Your task to perform on an android device: Open the web browser Image 0: 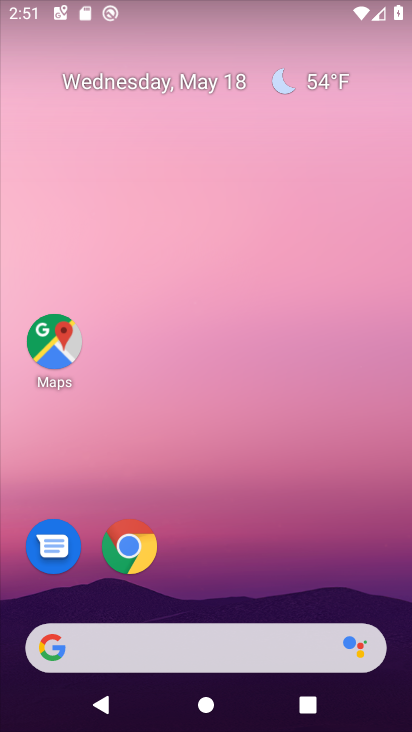
Step 0: drag from (243, 607) to (208, 144)
Your task to perform on an android device: Open the web browser Image 1: 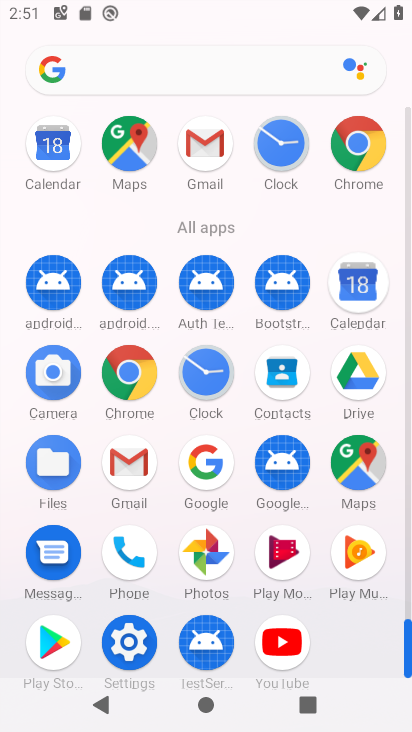
Step 1: click (357, 139)
Your task to perform on an android device: Open the web browser Image 2: 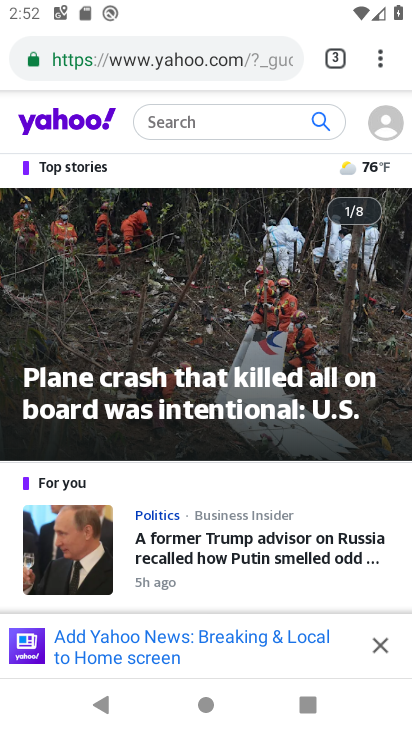
Step 2: press back button
Your task to perform on an android device: Open the web browser Image 3: 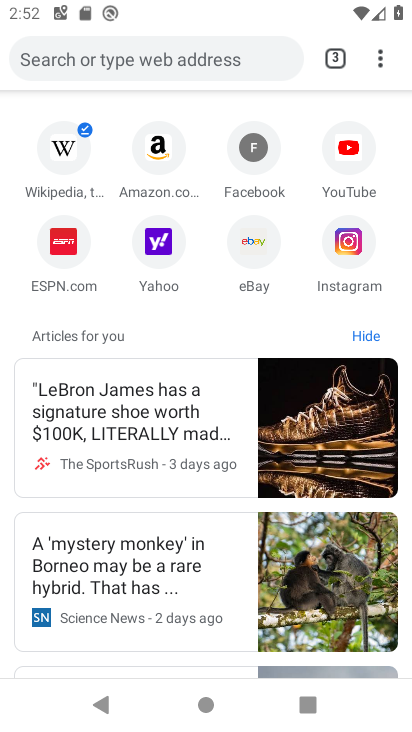
Step 3: press home button
Your task to perform on an android device: Open the web browser Image 4: 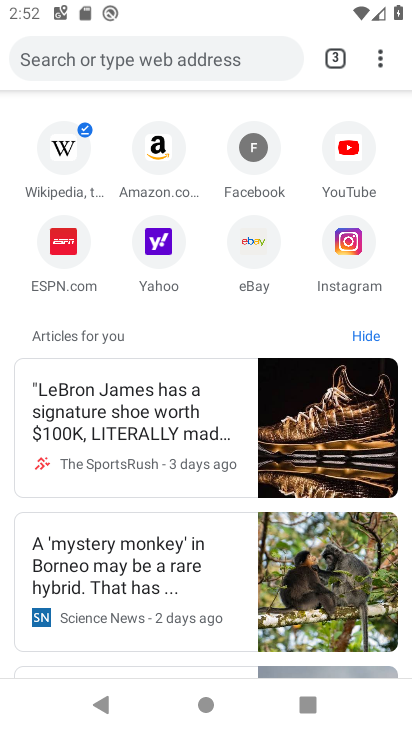
Step 4: press home button
Your task to perform on an android device: Open the web browser Image 5: 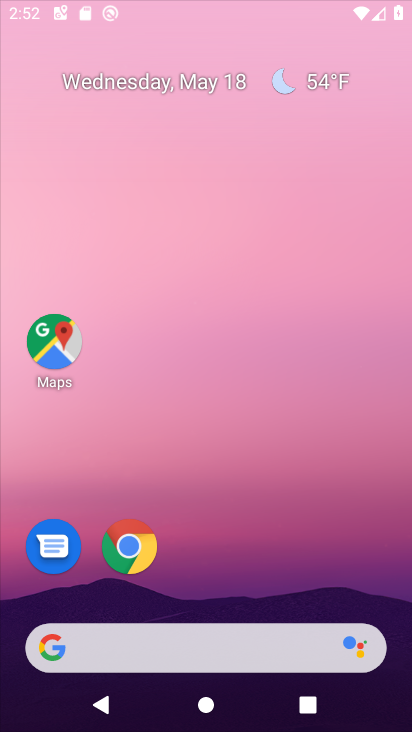
Step 5: press home button
Your task to perform on an android device: Open the web browser Image 6: 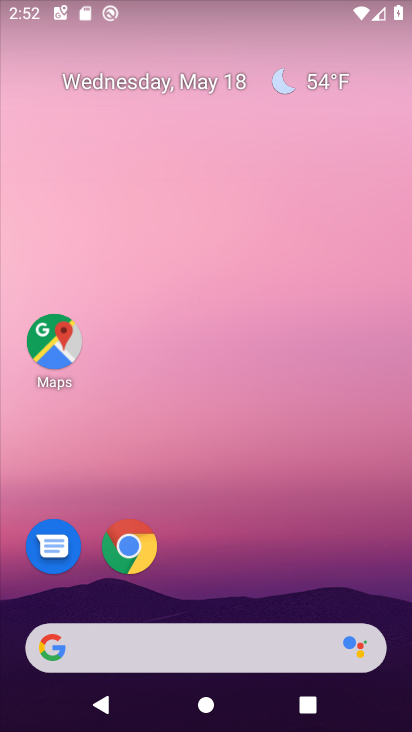
Step 6: press home button
Your task to perform on an android device: Open the web browser Image 7: 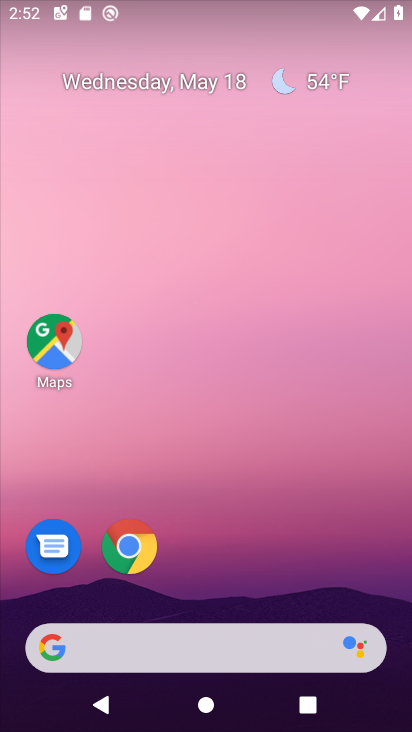
Step 7: drag from (210, 650) to (135, 226)
Your task to perform on an android device: Open the web browser Image 8: 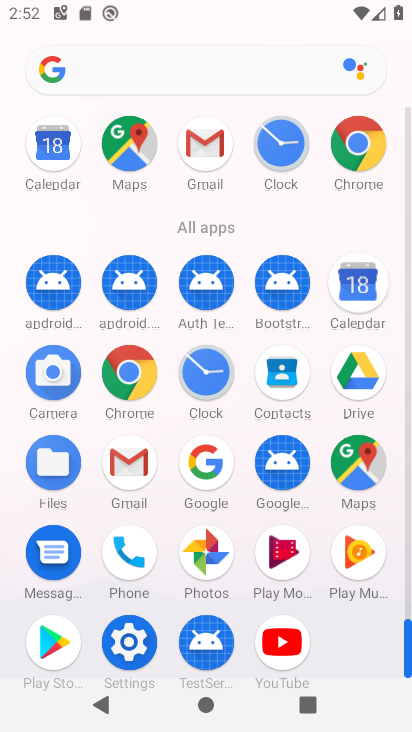
Step 8: drag from (208, 540) to (144, 161)
Your task to perform on an android device: Open the web browser Image 9: 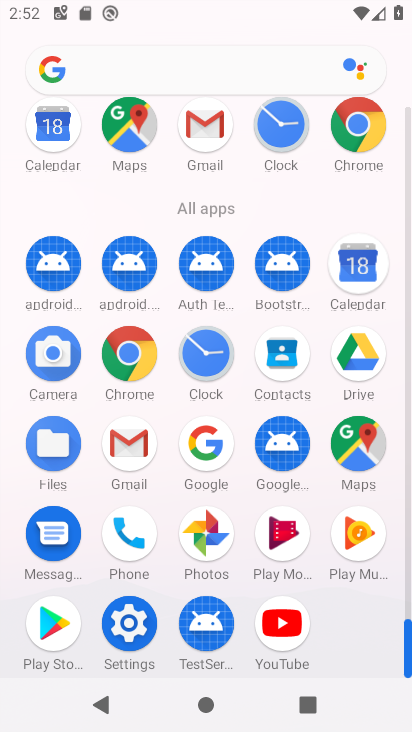
Step 9: click (363, 138)
Your task to perform on an android device: Open the web browser Image 10: 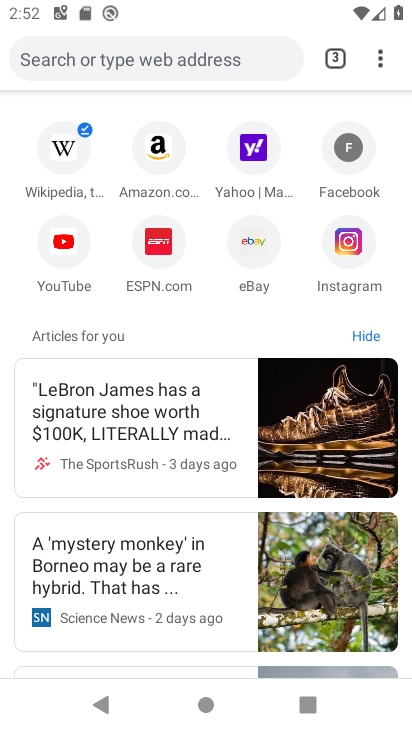
Step 10: drag from (380, 62) to (146, 108)
Your task to perform on an android device: Open the web browser Image 11: 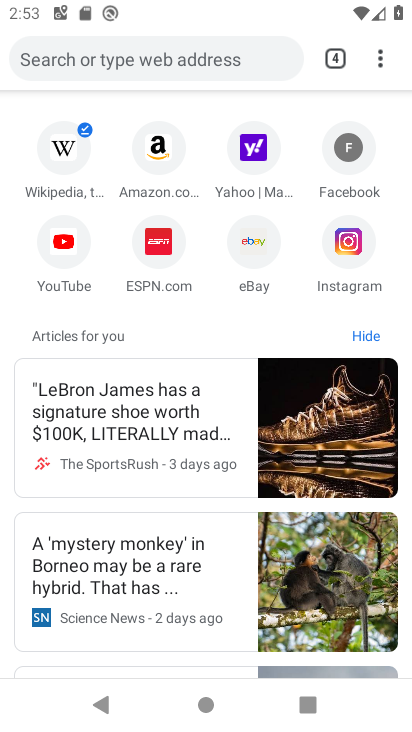
Step 11: drag from (374, 57) to (166, 120)
Your task to perform on an android device: Open the web browser Image 12: 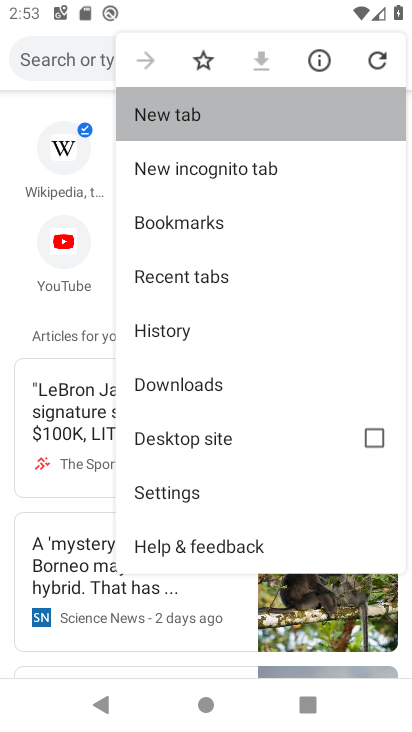
Step 12: click (167, 119)
Your task to perform on an android device: Open the web browser Image 13: 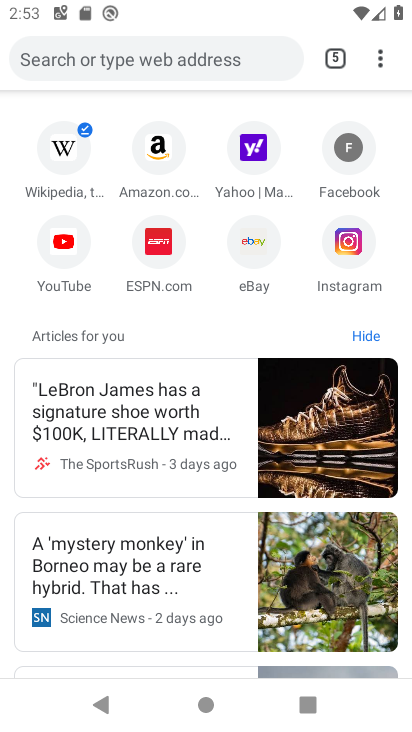
Step 13: task complete